Your task to perform on an android device: allow notifications from all sites in the chrome app Image 0: 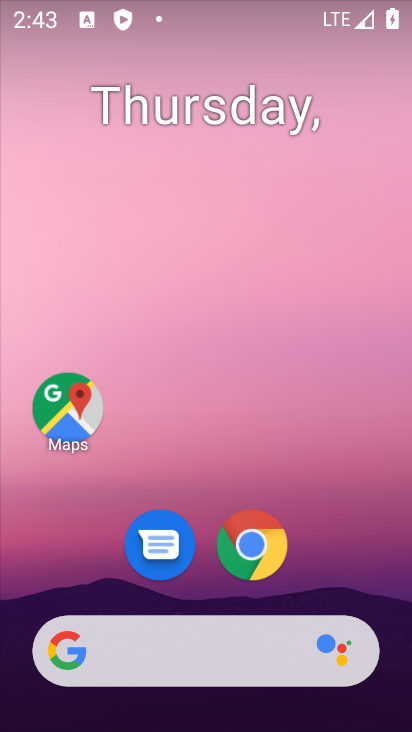
Step 0: drag from (326, 583) to (330, 4)
Your task to perform on an android device: allow notifications from all sites in the chrome app Image 1: 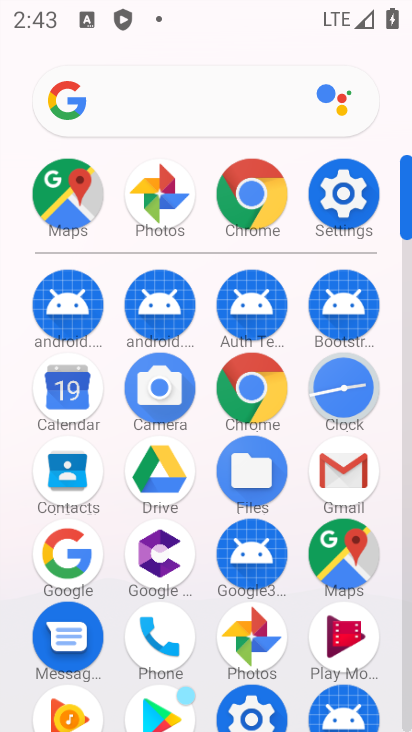
Step 1: click (271, 381)
Your task to perform on an android device: allow notifications from all sites in the chrome app Image 2: 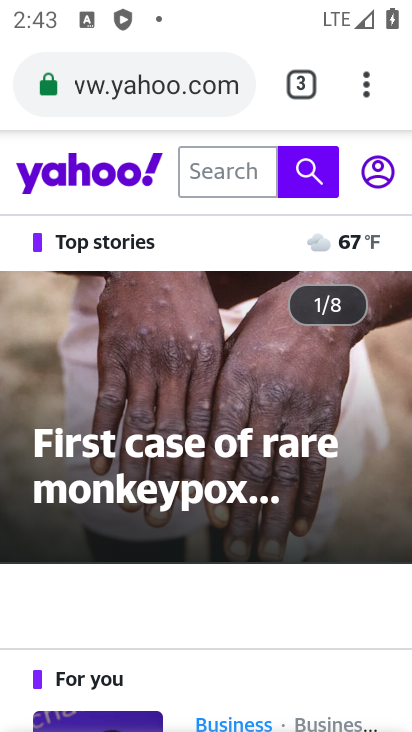
Step 2: drag from (361, 74) to (222, 361)
Your task to perform on an android device: allow notifications from all sites in the chrome app Image 3: 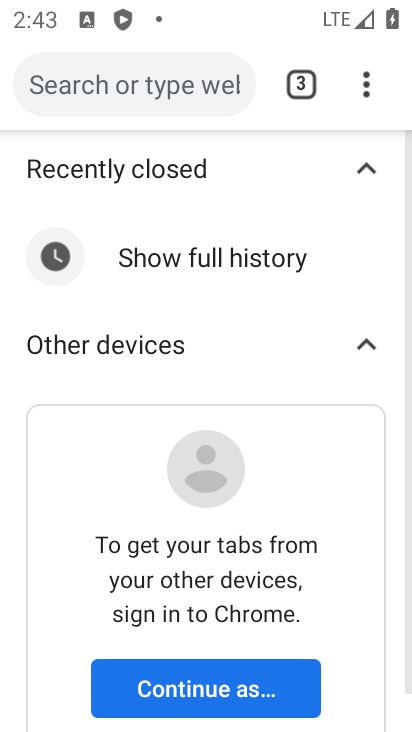
Step 3: drag from (370, 77) to (97, 602)
Your task to perform on an android device: allow notifications from all sites in the chrome app Image 4: 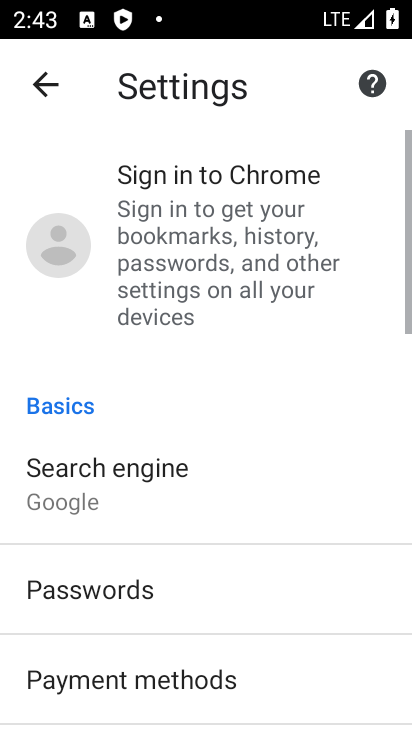
Step 4: drag from (259, 598) to (305, 57)
Your task to perform on an android device: allow notifications from all sites in the chrome app Image 5: 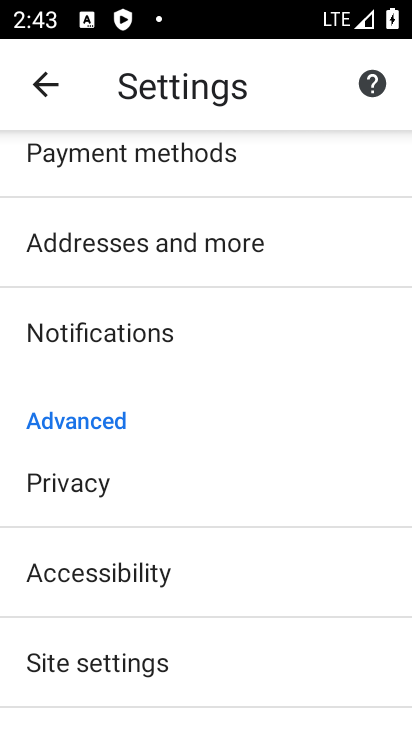
Step 5: drag from (245, 629) to (312, 297)
Your task to perform on an android device: allow notifications from all sites in the chrome app Image 6: 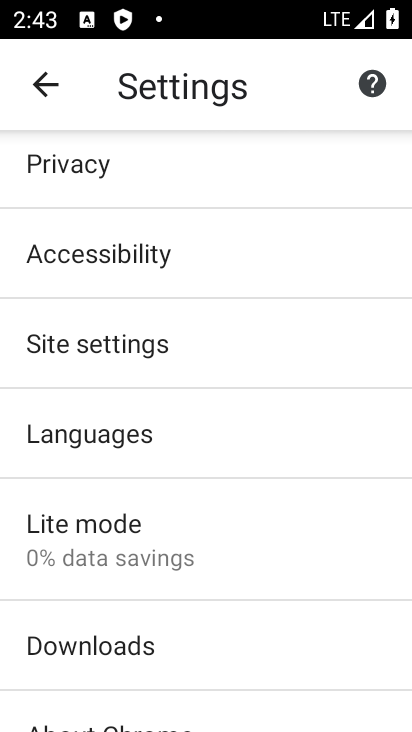
Step 6: click (161, 355)
Your task to perform on an android device: allow notifications from all sites in the chrome app Image 7: 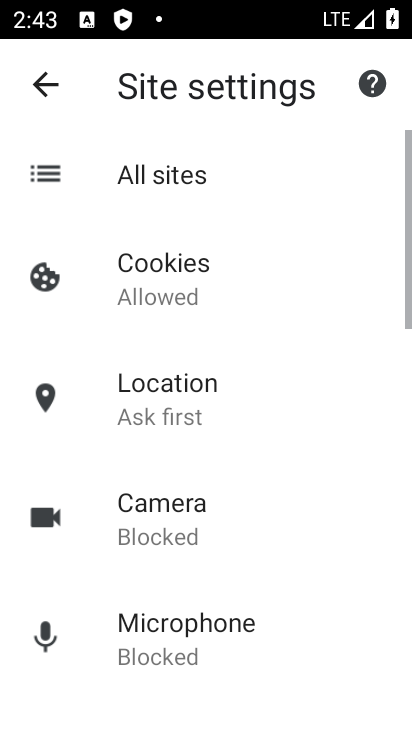
Step 7: drag from (263, 624) to (292, 207)
Your task to perform on an android device: allow notifications from all sites in the chrome app Image 8: 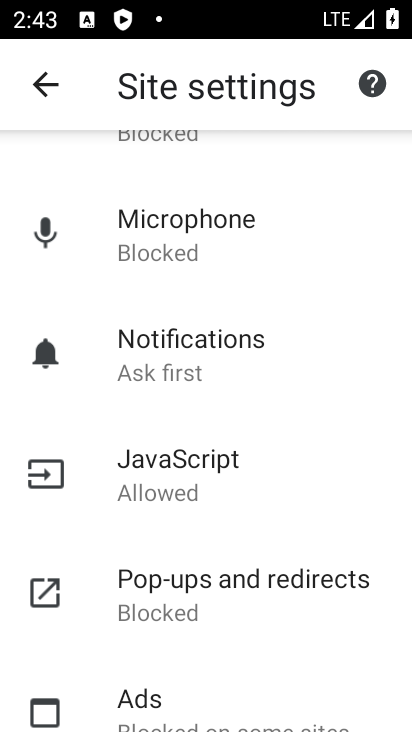
Step 8: click (164, 382)
Your task to perform on an android device: allow notifications from all sites in the chrome app Image 9: 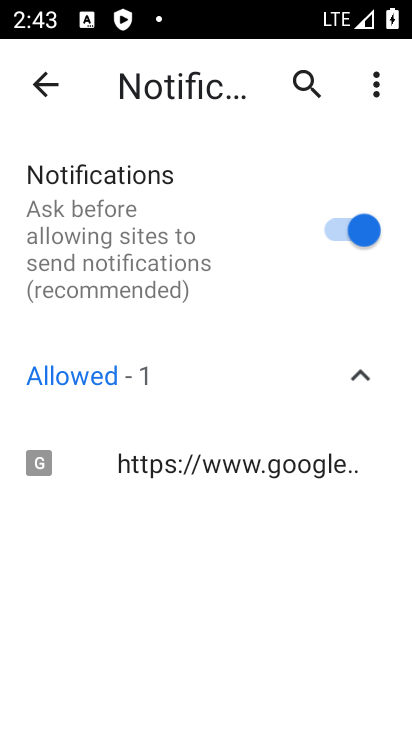
Step 9: click (273, 468)
Your task to perform on an android device: allow notifications from all sites in the chrome app Image 10: 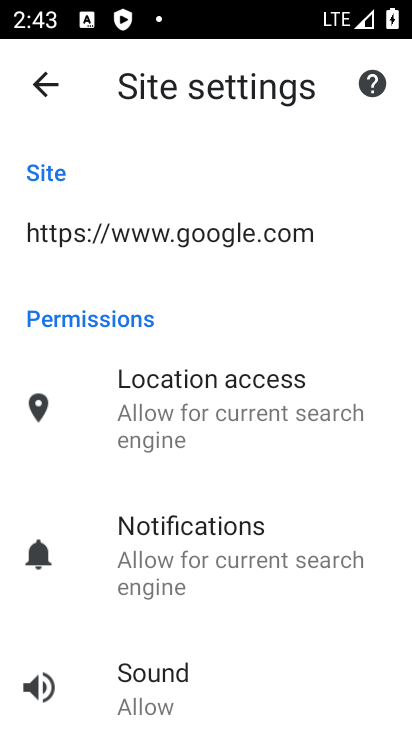
Step 10: task complete